Your task to perform on an android device: Open maps Image 0: 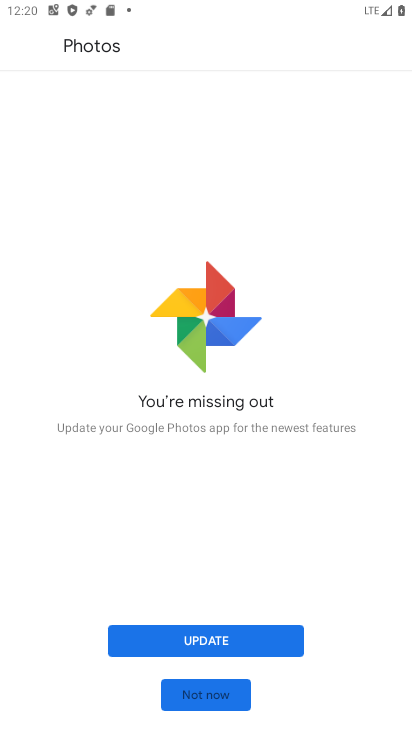
Step 0: press home button
Your task to perform on an android device: Open maps Image 1: 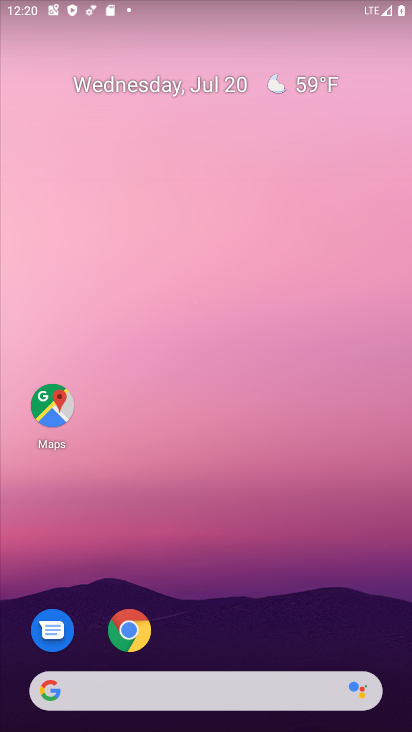
Step 1: drag from (208, 650) to (170, 269)
Your task to perform on an android device: Open maps Image 2: 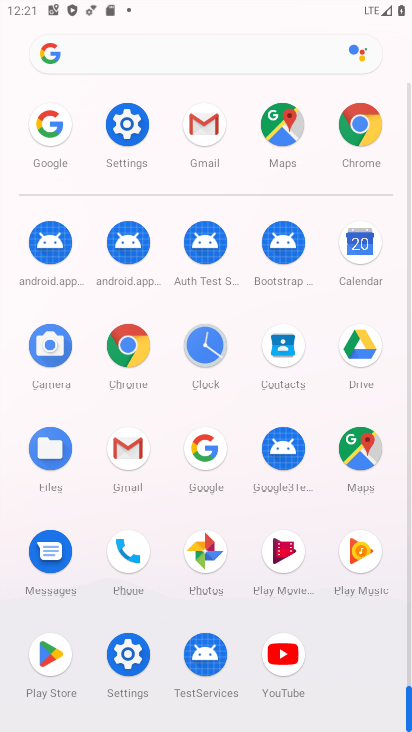
Step 2: click (292, 135)
Your task to perform on an android device: Open maps Image 3: 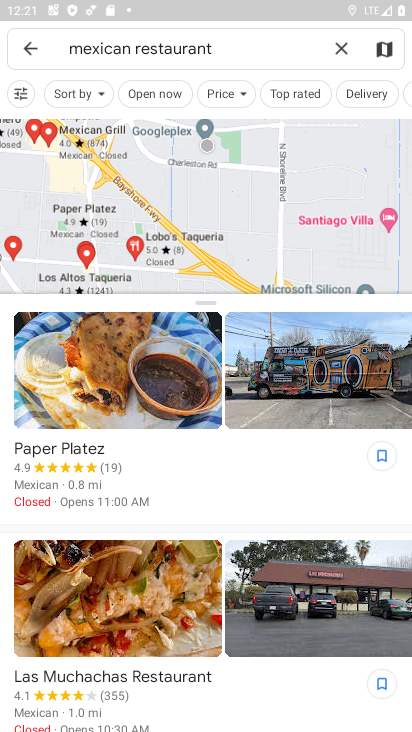
Step 3: task complete